Your task to perform on an android device: change alarm snooze length Image 0: 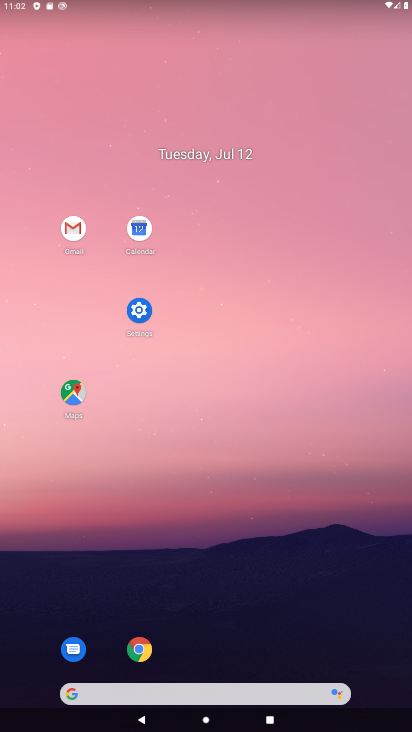
Step 0: drag from (280, 634) to (256, 141)
Your task to perform on an android device: change alarm snooze length Image 1: 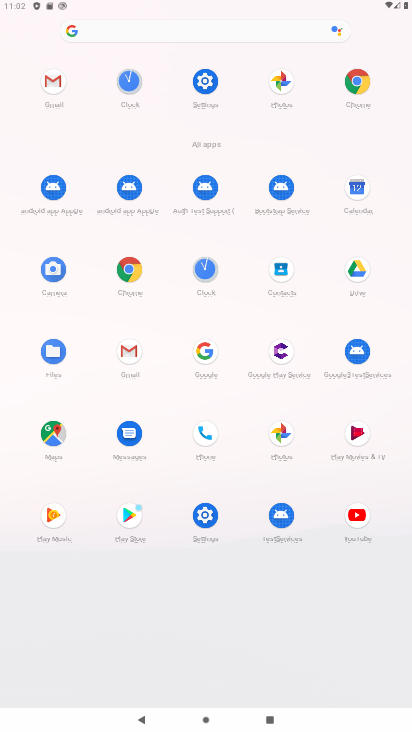
Step 1: drag from (133, 70) to (193, 192)
Your task to perform on an android device: change alarm snooze length Image 2: 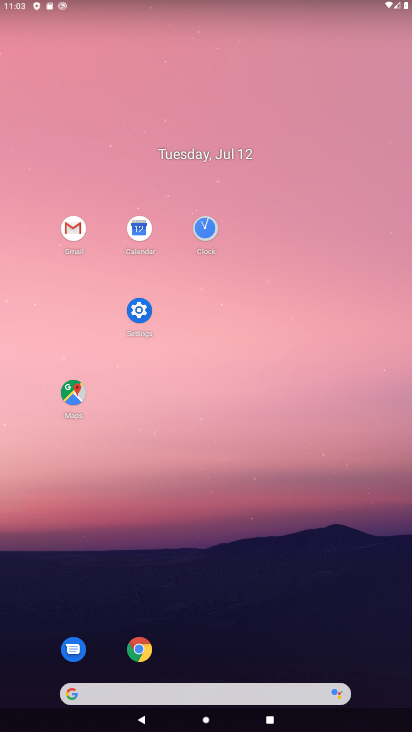
Step 2: click (206, 231)
Your task to perform on an android device: change alarm snooze length Image 3: 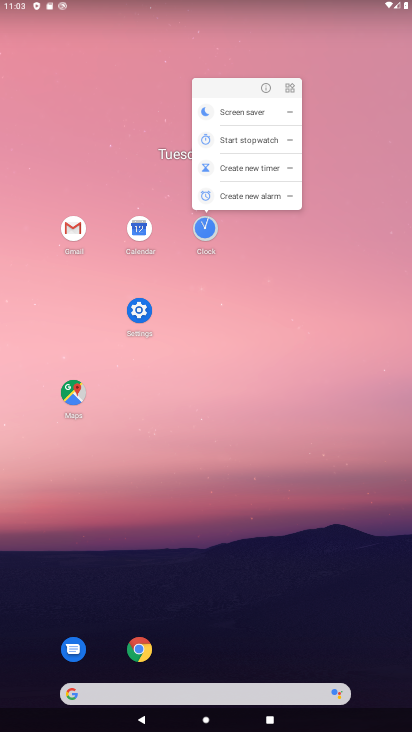
Step 3: click (207, 230)
Your task to perform on an android device: change alarm snooze length Image 4: 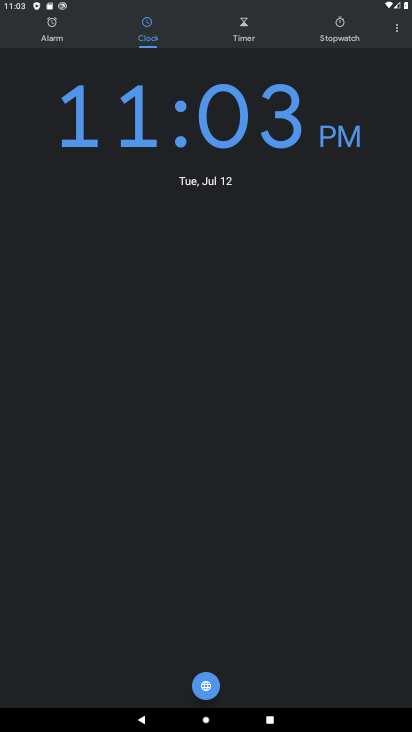
Step 4: click (401, 28)
Your task to perform on an android device: change alarm snooze length Image 5: 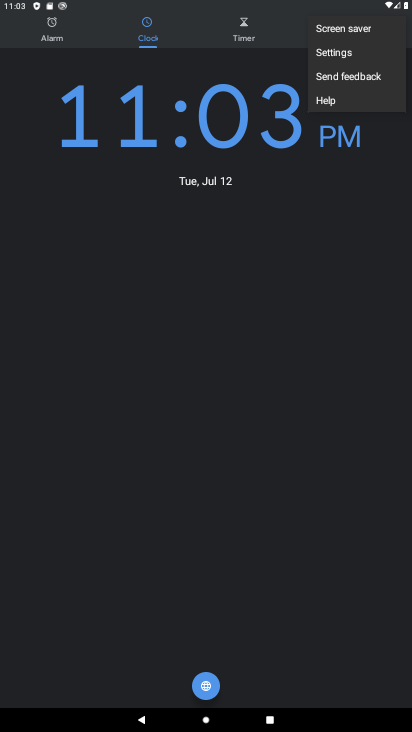
Step 5: click (362, 57)
Your task to perform on an android device: change alarm snooze length Image 6: 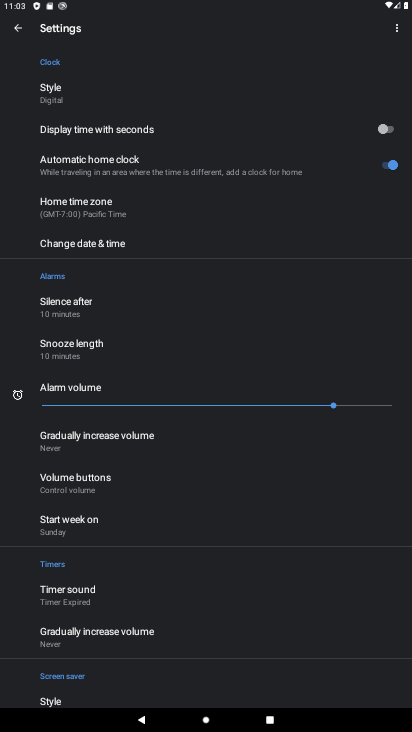
Step 6: click (103, 349)
Your task to perform on an android device: change alarm snooze length Image 7: 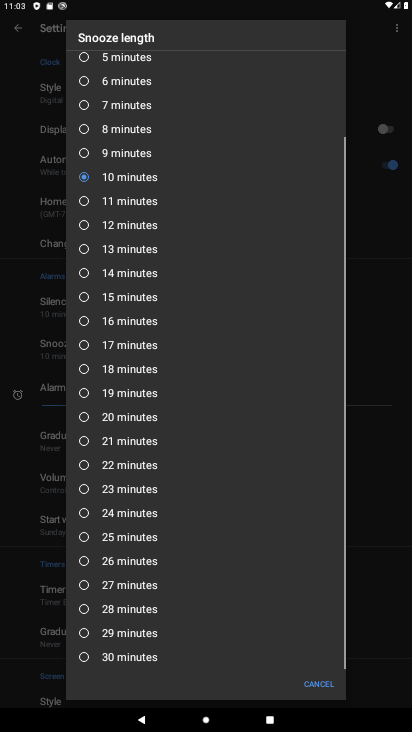
Step 7: click (166, 211)
Your task to perform on an android device: change alarm snooze length Image 8: 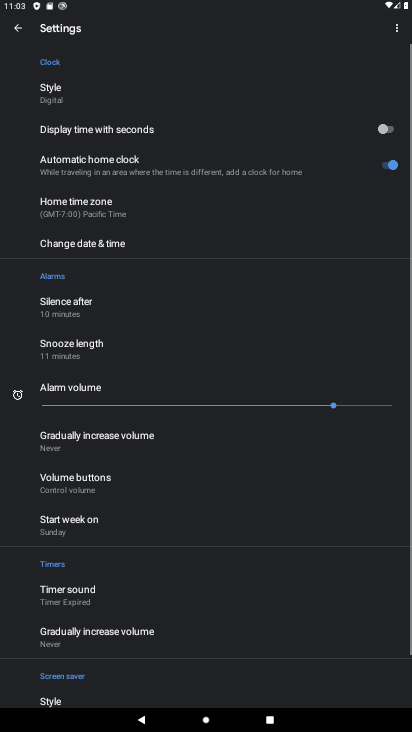
Step 8: task complete